Your task to perform on an android device: Go to Android settings Image 0: 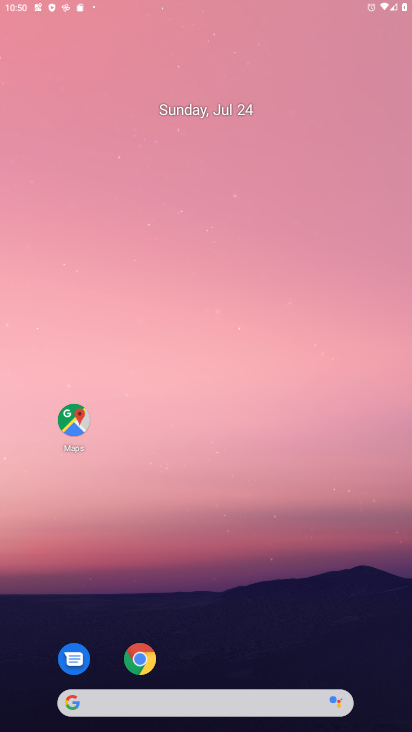
Step 0: click (343, 125)
Your task to perform on an android device: Go to Android settings Image 1: 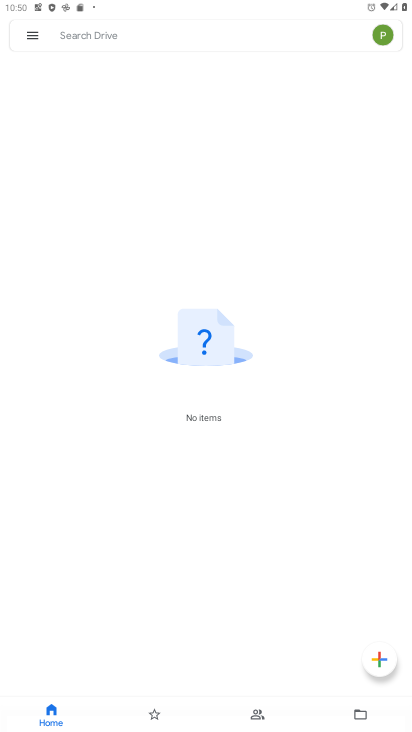
Step 1: press home button
Your task to perform on an android device: Go to Android settings Image 2: 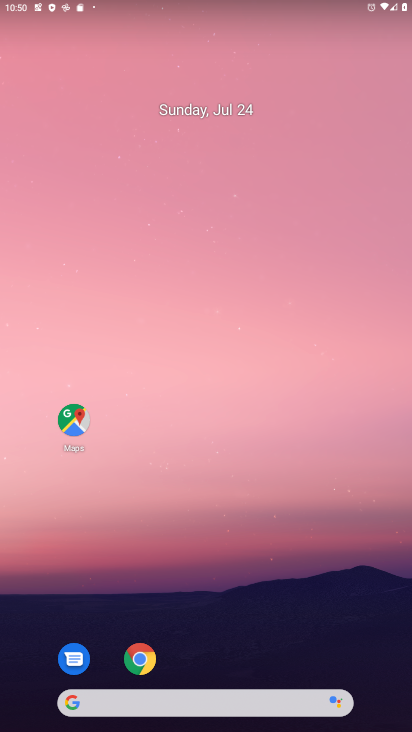
Step 2: drag from (390, 719) to (368, 126)
Your task to perform on an android device: Go to Android settings Image 3: 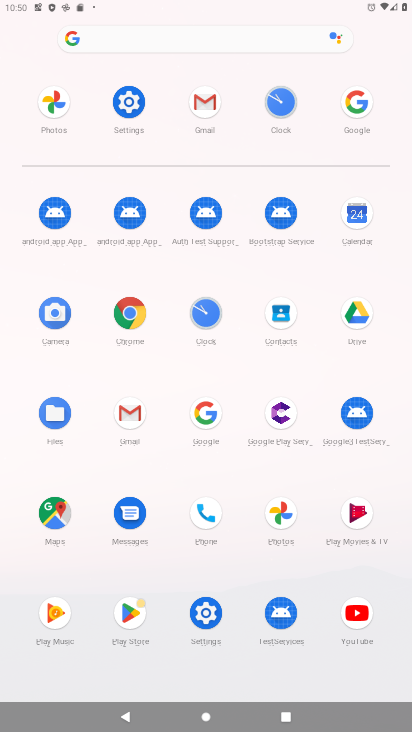
Step 3: click (133, 105)
Your task to perform on an android device: Go to Android settings Image 4: 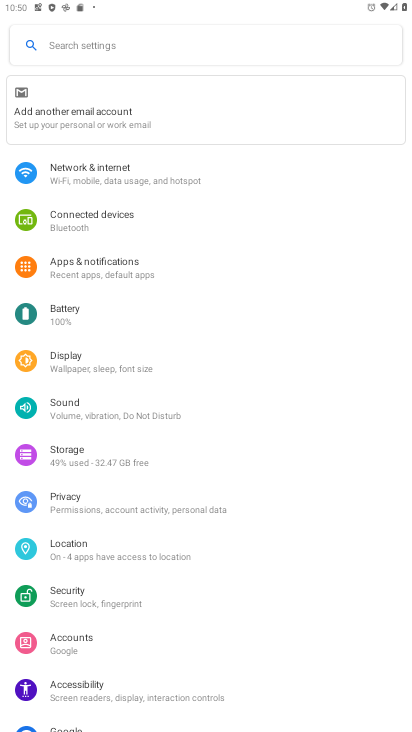
Step 4: task complete